Your task to perform on an android device: allow cookies in the chrome app Image 0: 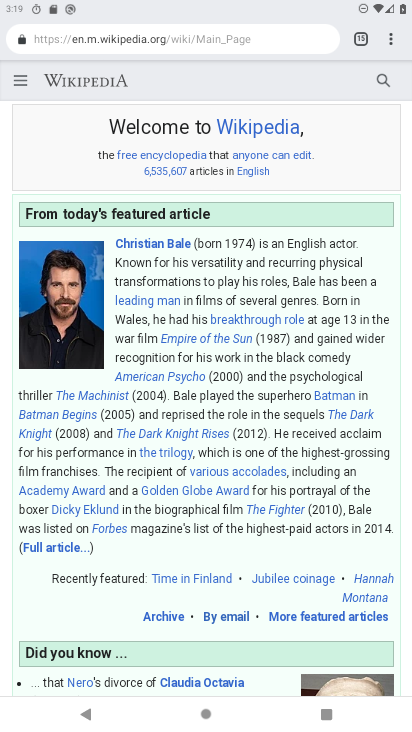
Step 0: press home button
Your task to perform on an android device: allow cookies in the chrome app Image 1: 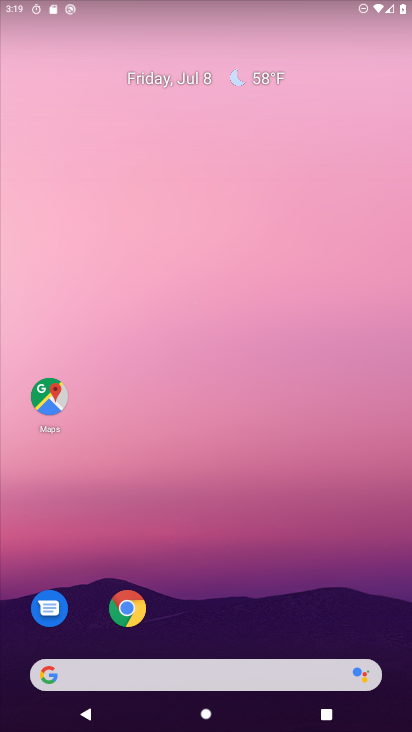
Step 1: click (126, 608)
Your task to perform on an android device: allow cookies in the chrome app Image 2: 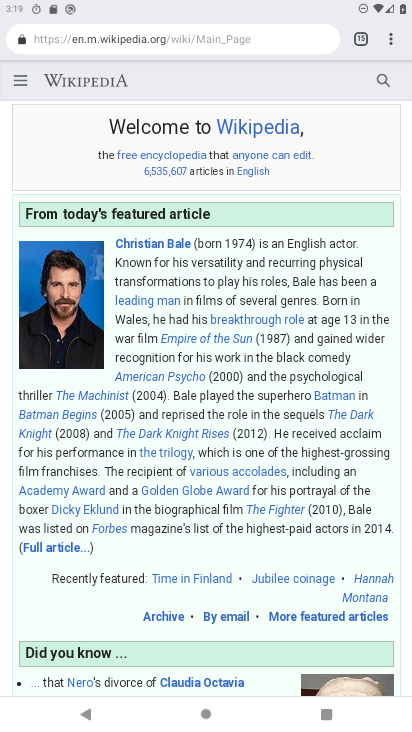
Step 2: click (391, 42)
Your task to perform on an android device: allow cookies in the chrome app Image 3: 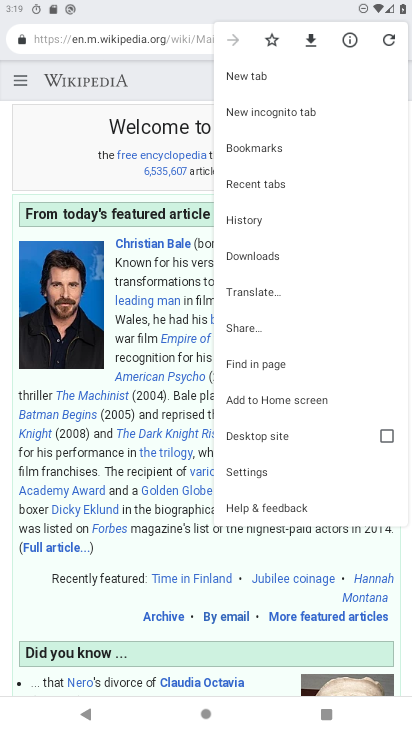
Step 3: click (254, 472)
Your task to perform on an android device: allow cookies in the chrome app Image 4: 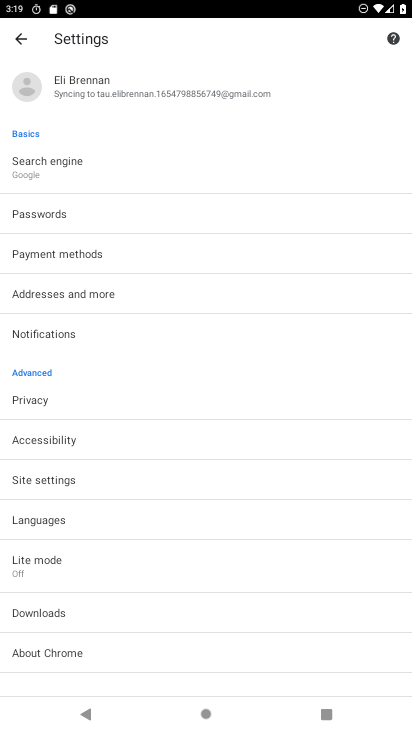
Step 4: click (46, 486)
Your task to perform on an android device: allow cookies in the chrome app Image 5: 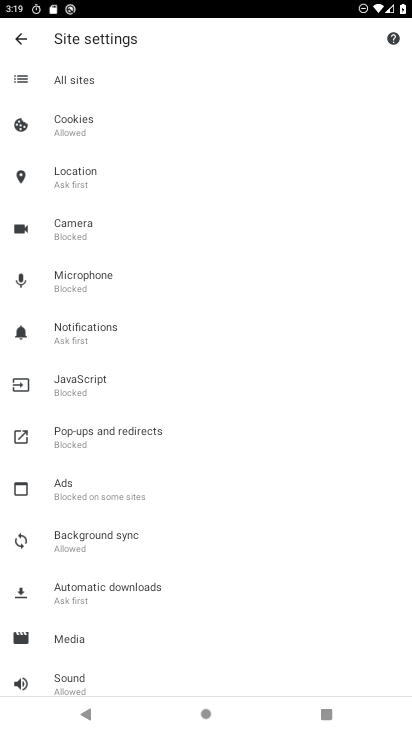
Step 5: click (72, 118)
Your task to perform on an android device: allow cookies in the chrome app Image 6: 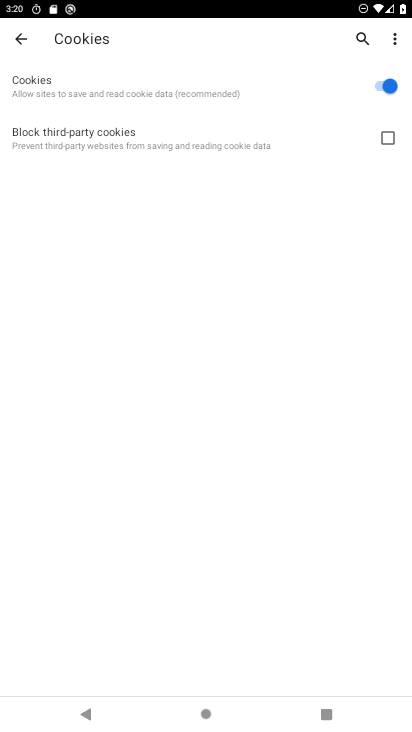
Step 6: task complete